Your task to perform on an android device: Search for Mexican restaurants on Maps Image 0: 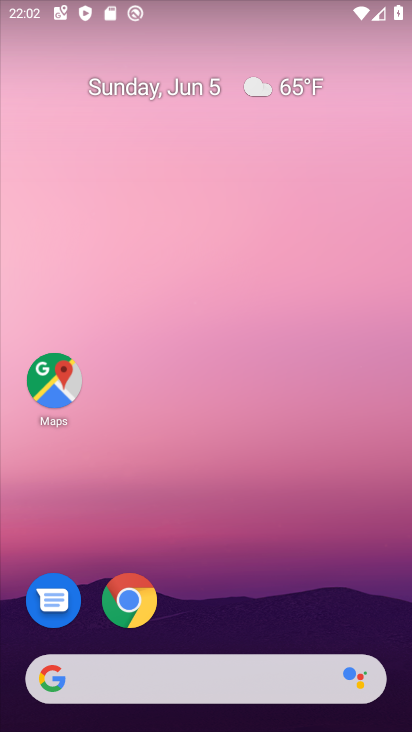
Step 0: click (53, 382)
Your task to perform on an android device: Search for Mexican restaurants on Maps Image 1: 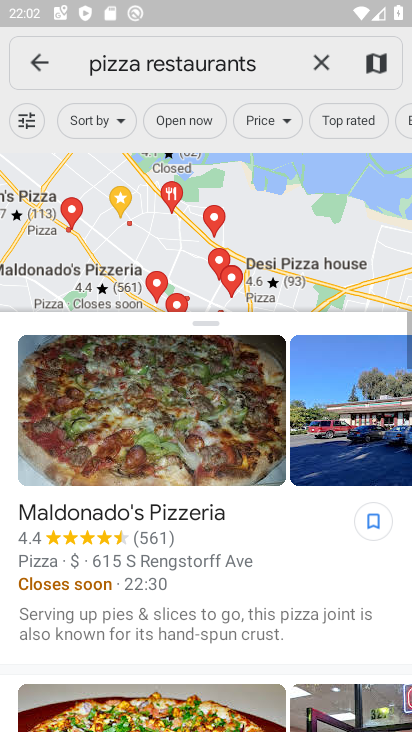
Step 1: click (189, 73)
Your task to perform on an android device: Search for Mexican restaurants on Maps Image 2: 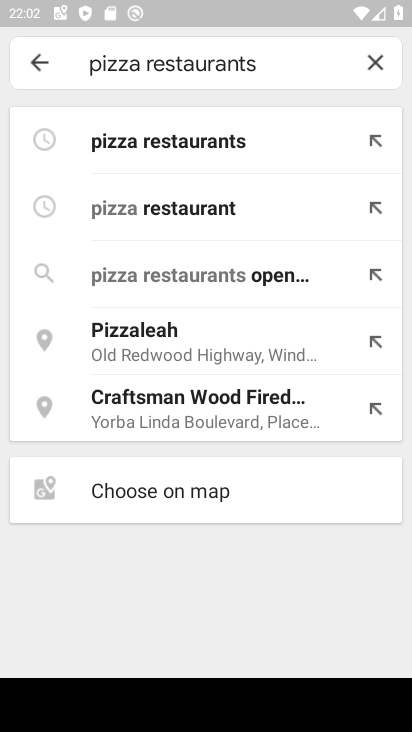
Step 2: click (379, 65)
Your task to perform on an android device: Search for Mexican restaurants on Maps Image 3: 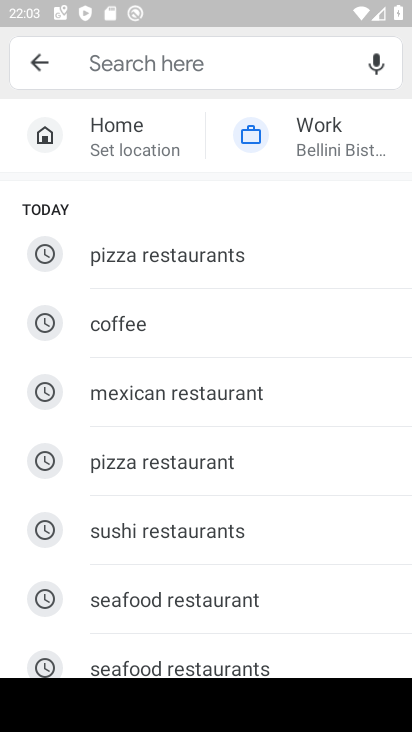
Step 3: type "Mexican restaurants"
Your task to perform on an android device: Search for Mexican restaurants on Maps Image 4: 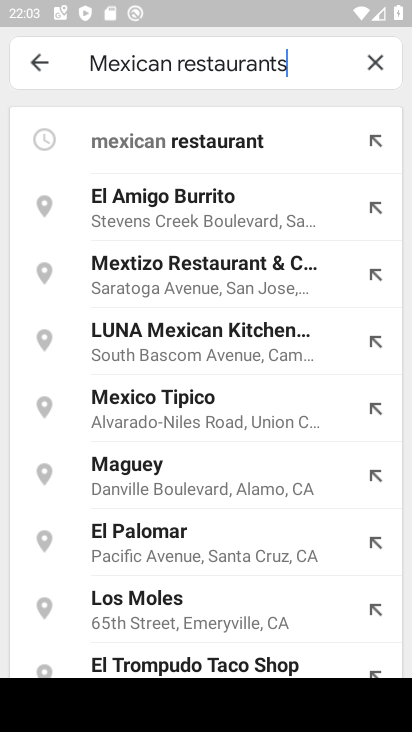
Step 4: press enter
Your task to perform on an android device: Search for Mexican restaurants on Maps Image 5: 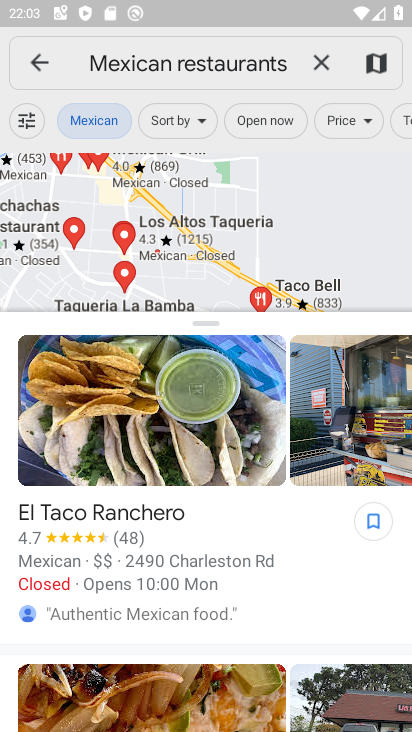
Step 5: task complete